Your task to perform on an android device: change timer sound Image 0: 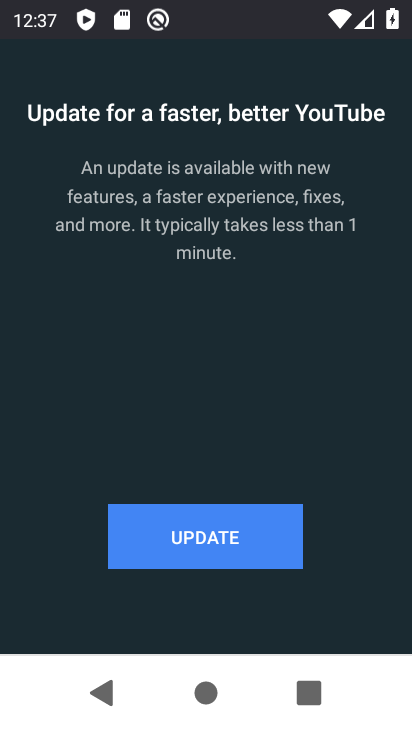
Step 0: click (252, 75)
Your task to perform on an android device: change timer sound Image 1: 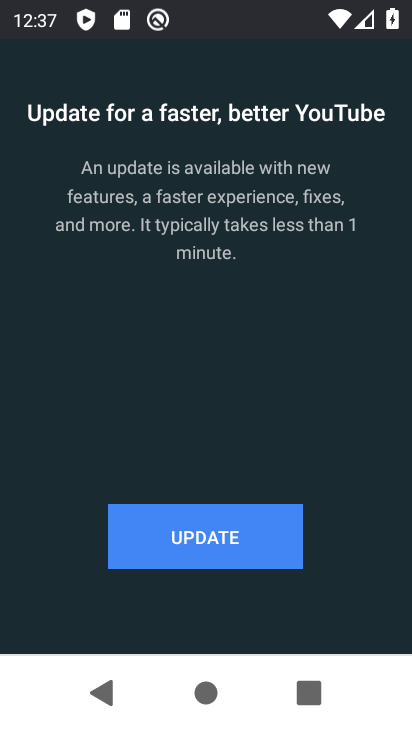
Step 1: press home button
Your task to perform on an android device: change timer sound Image 2: 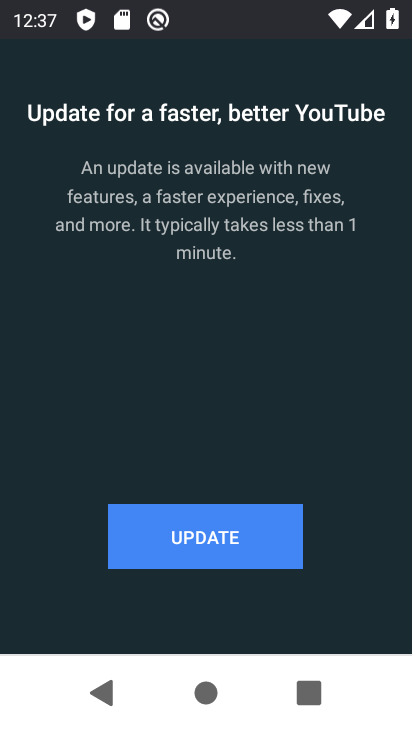
Step 2: drag from (252, 75) to (354, 382)
Your task to perform on an android device: change timer sound Image 3: 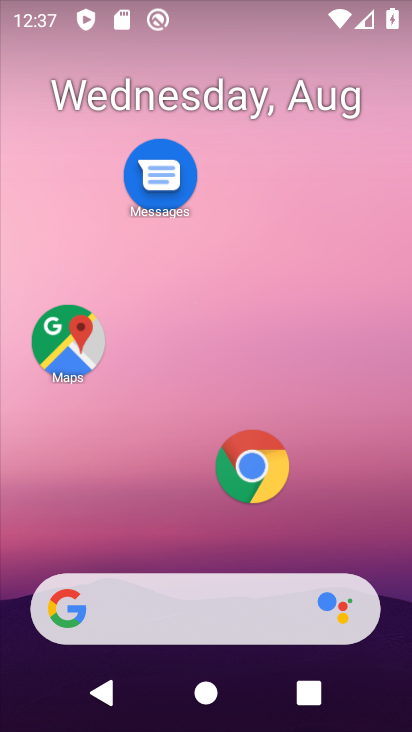
Step 3: drag from (228, 0) to (187, 5)
Your task to perform on an android device: change timer sound Image 4: 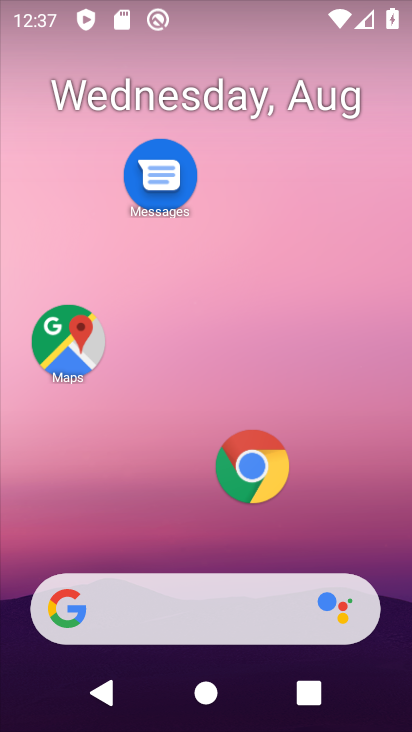
Step 4: drag from (225, 171) to (230, 70)
Your task to perform on an android device: change timer sound Image 5: 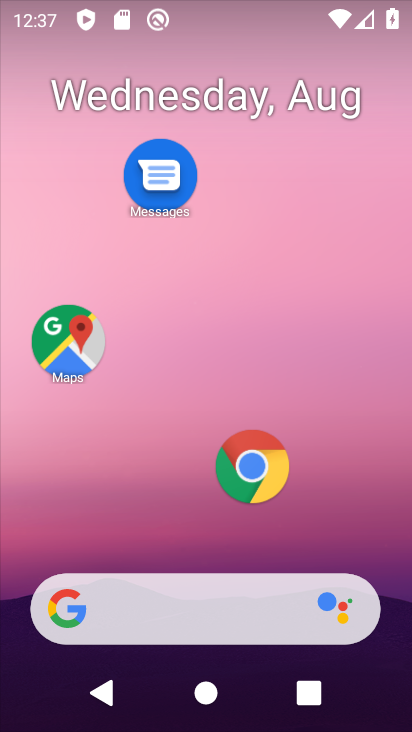
Step 5: drag from (202, 468) to (218, 10)
Your task to perform on an android device: change timer sound Image 6: 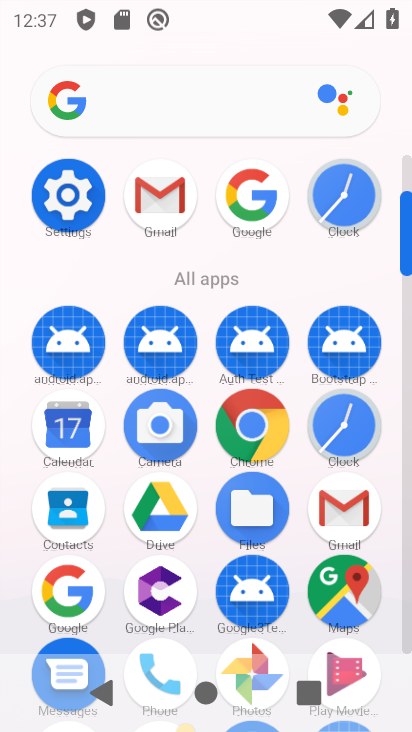
Step 6: click (345, 420)
Your task to perform on an android device: change timer sound Image 7: 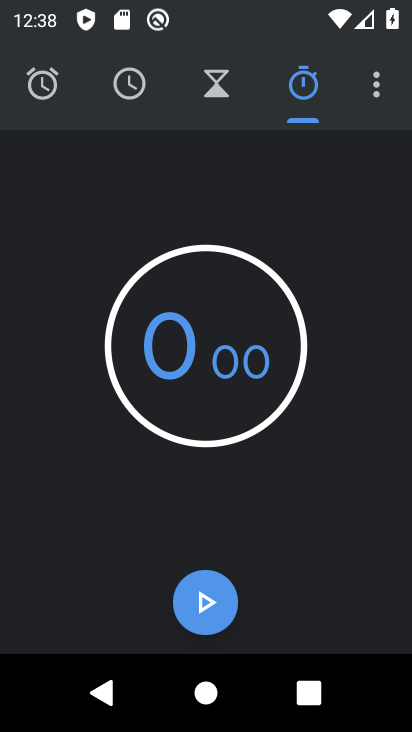
Step 7: click (372, 75)
Your task to perform on an android device: change timer sound Image 8: 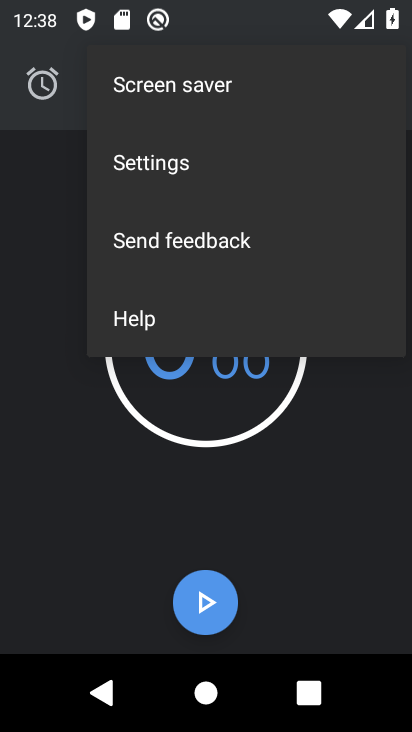
Step 8: click (177, 152)
Your task to perform on an android device: change timer sound Image 9: 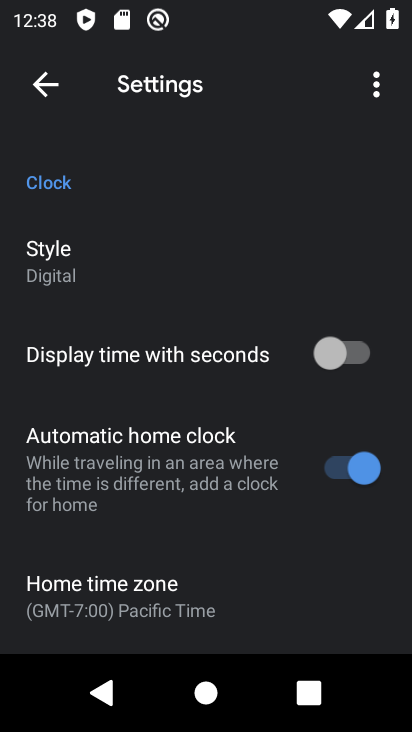
Step 9: drag from (166, 551) to (202, 342)
Your task to perform on an android device: change timer sound Image 10: 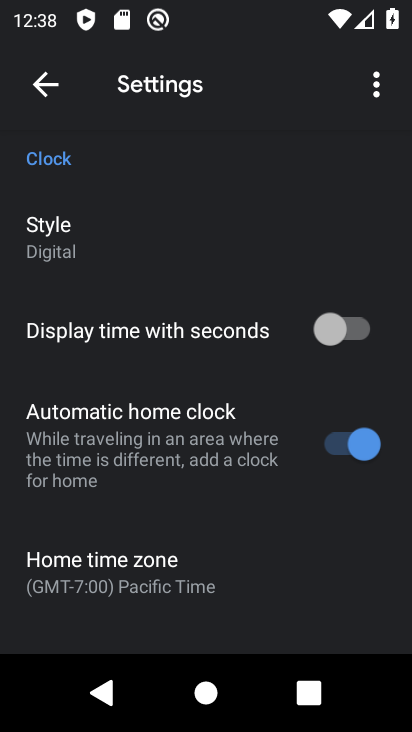
Step 10: drag from (144, 450) to (154, 1)
Your task to perform on an android device: change timer sound Image 11: 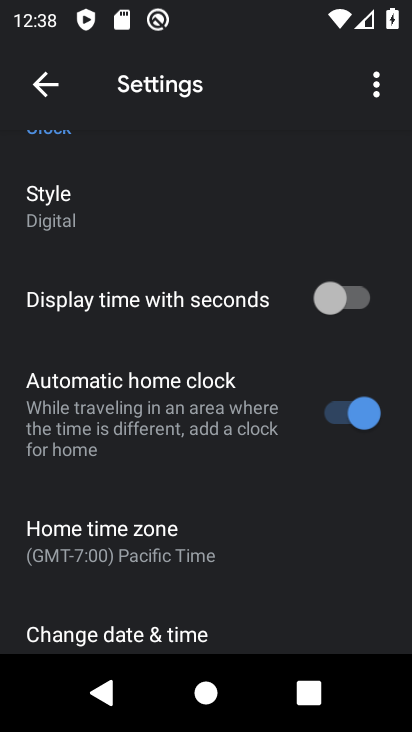
Step 11: drag from (112, 549) to (172, 159)
Your task to perform on an android device: change timer sound Image 12: 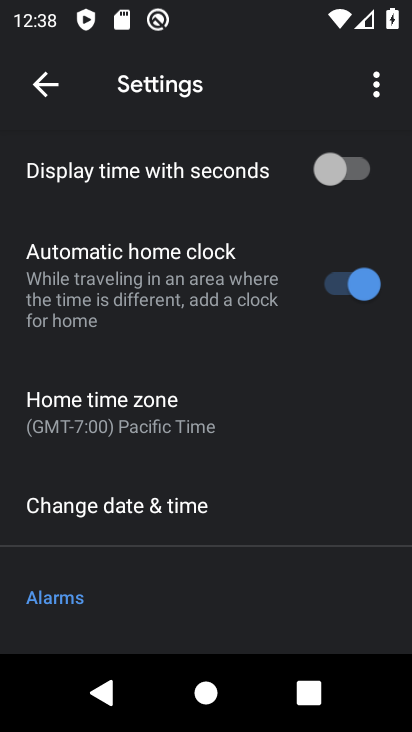
Step 12: click (177, 166)
Your task to perform on an android device: change timer sound Image 13: 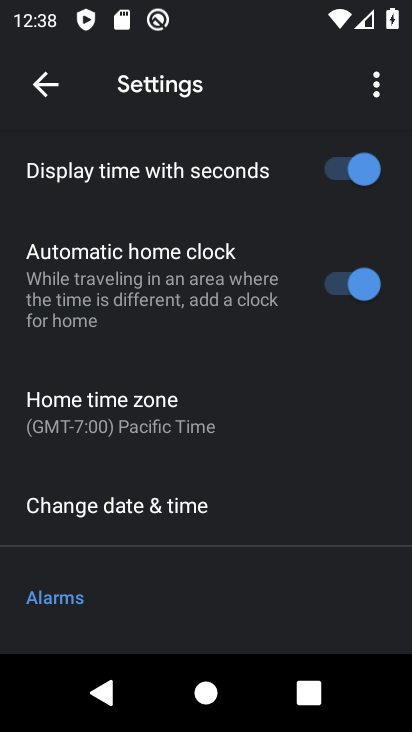
Step 13: click (326, 173)
Your task to perform on an android device: change timer sound Image 14: 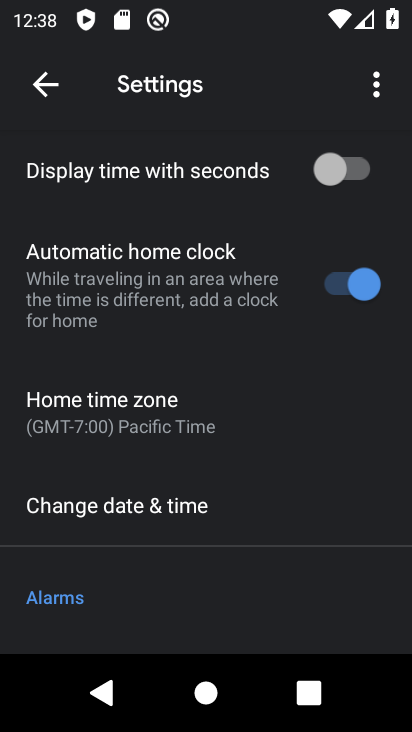
Step 14: drag from (168, 559) to (194, 168)
Your task to perform on an android device: change timer sound Image 15: 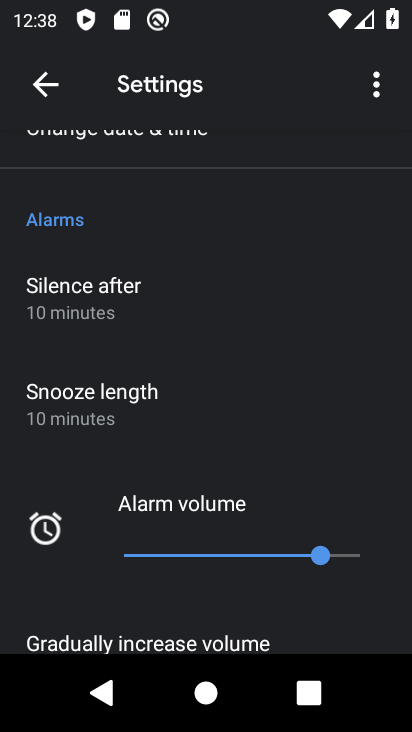
Step 15: drag from (210, 245) to (260, 12)
Your task to perform on an android device: change timer sound Image 16: 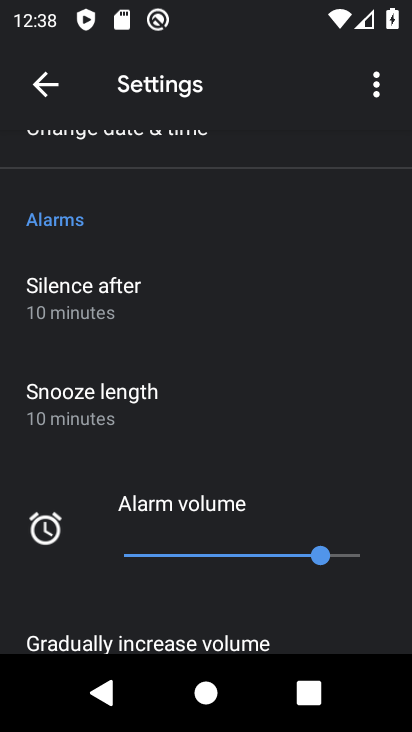
Step 16: drag from (217, 427) to (224, 85)
Your task to perform on an android device: change timer sound Image 17: 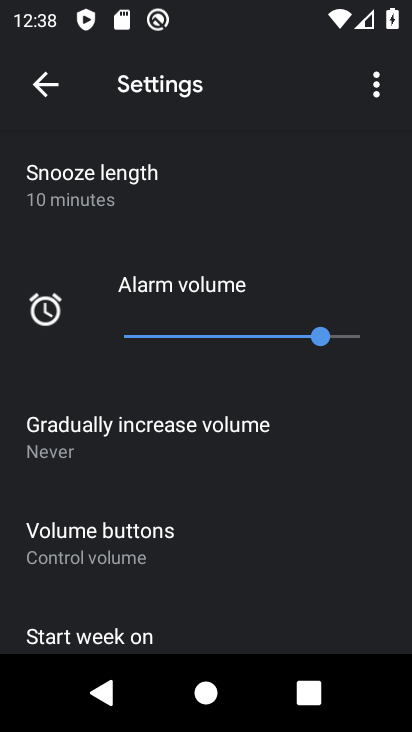
Step 17: drag from (269, 259) to (209, 721)
Your task to perform on an android device: change timer sound Image 18: 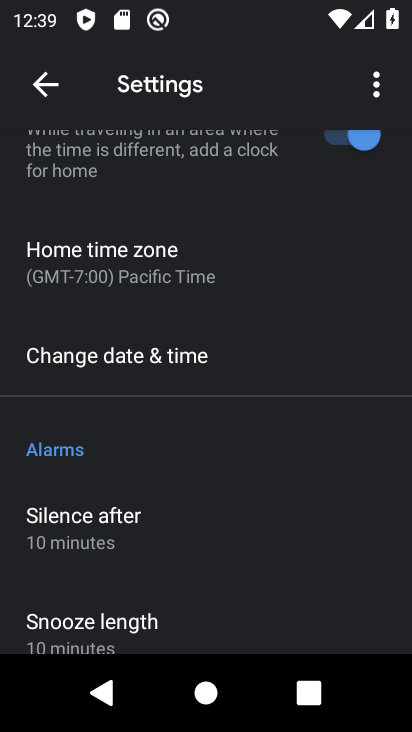
Step 18: drag from (236, 550) to (210, 691)
Your task to perform on an android device: change timer sound Image 19: 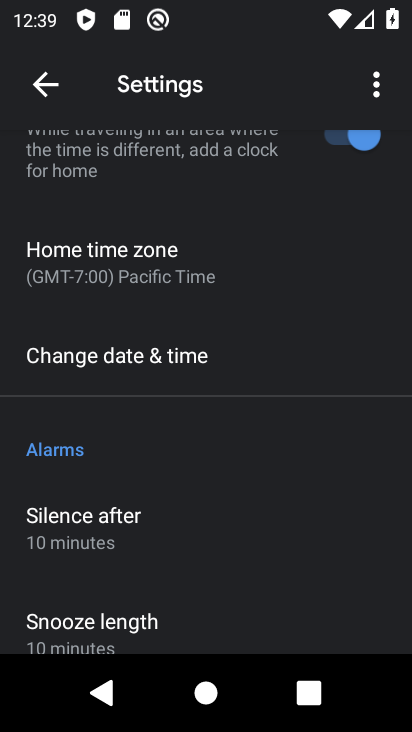
Step 19: drag from (232, 231) to (226, 520)
Your task to perform on an android device: change timer sound Image 20: 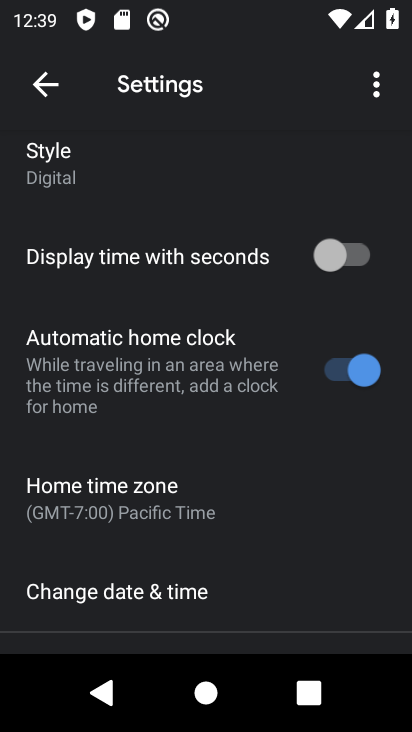
Step 20: drag from (204, 545) to (215, 310)
Your task to perform on an android device: change timer sound Image 21: 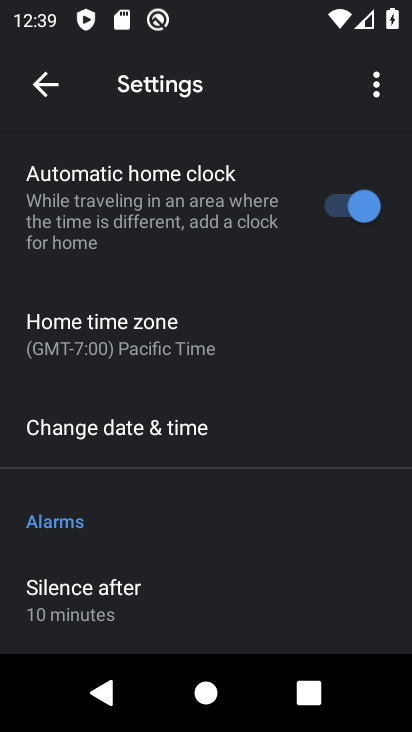
Step 21: drag from (171, 516) to (202, 276)
Your task to perform on an android device: change timer sound Image 22: 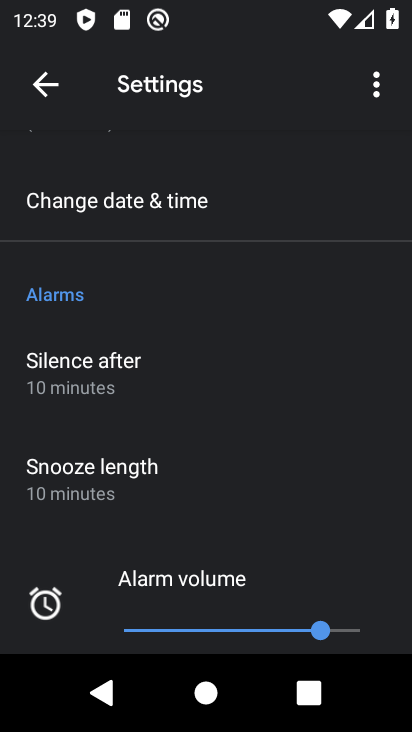
Step 22: drag from (143, 598) to (180, 314)
Your task to perform on an android device: change timer sound Image 23: 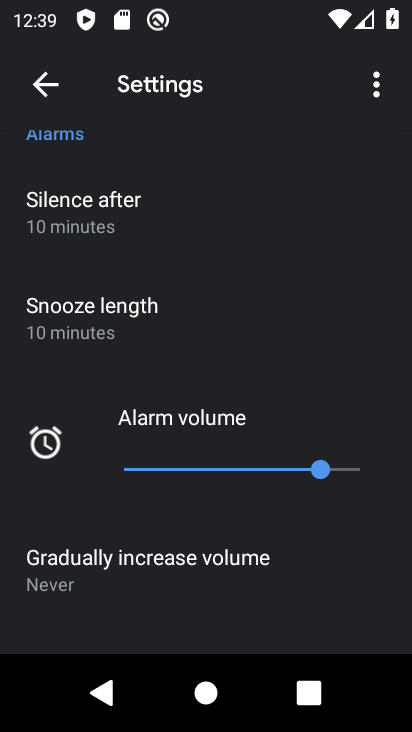
Step 23: drag from (132, 583) to (193, 191)
Your task to perform on an android device: change timer sound Image 24: 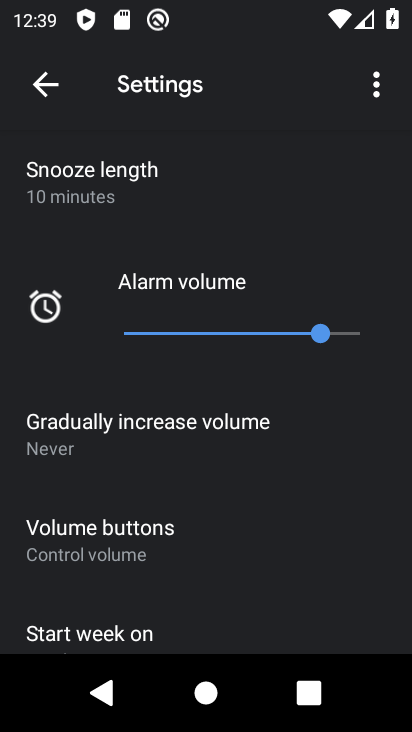
Step 24: drag from (209, 571) to (224, 318)
Your task to perform on an android device: change timer sound Image 25: 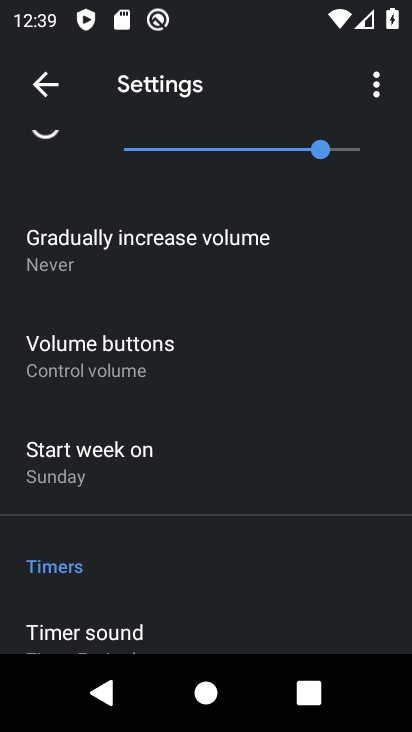
Step 25: drag from (161, 516) to (226, 215)
Your task to perform on an android device: change timer sound Image 26: 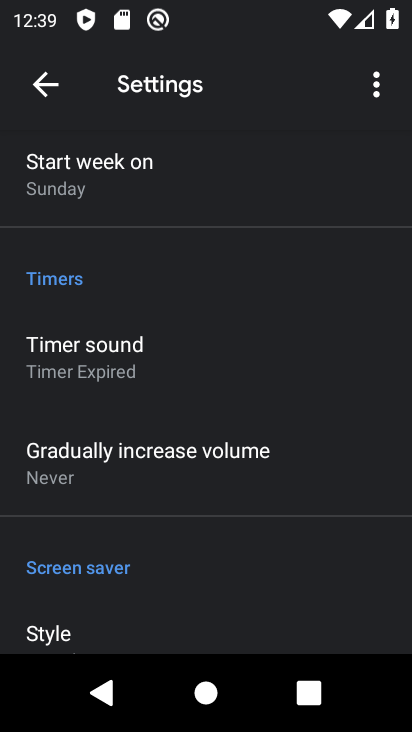
Step 26: click (115, 349)
Your task to perform on an android device: change timer sound Image 27: 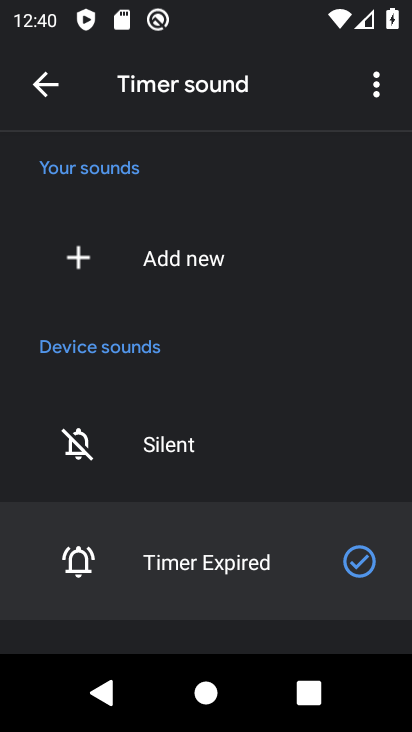
Step 27: drag from (181, 581) to (222, 320)
Your task to perform on an android device: change timer sound Image 28: 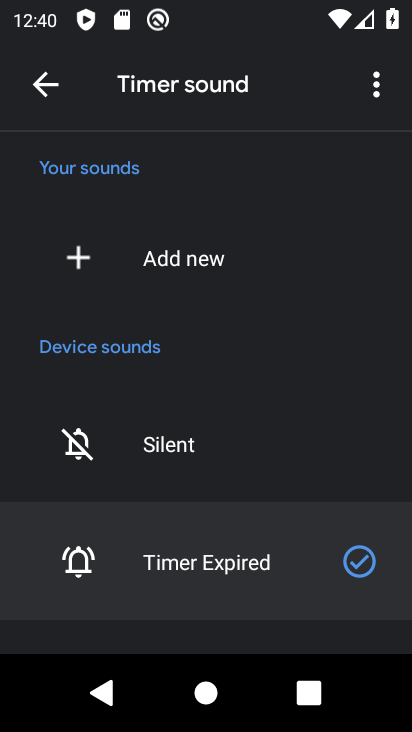
Step 28: drag from (171, 452) to (201, 285)
Your task to perform on an android device: change timer sound Image 29: 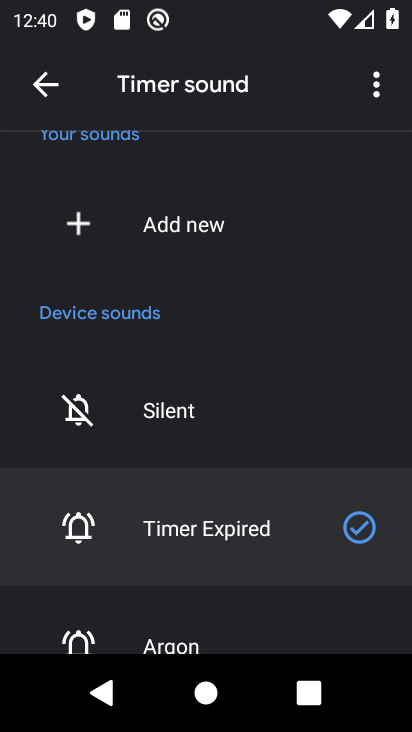
Step 29: click (77, 645)
Your task to perform on an android device: change timer sound Image 30: 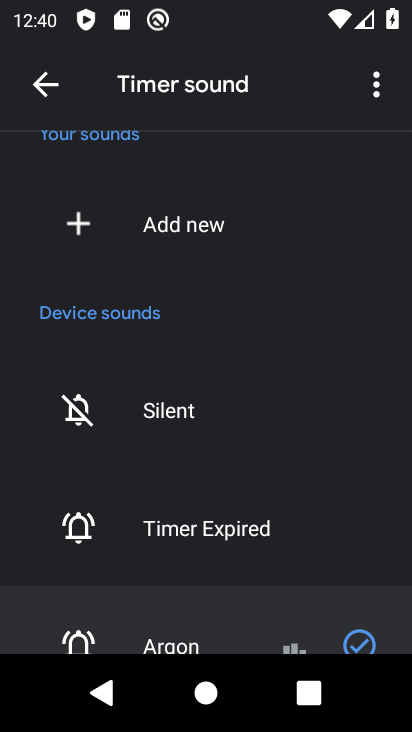
Step 30: task complete